Your task to perform on an android device: What's the weather going to be tomorrow? Image 0: 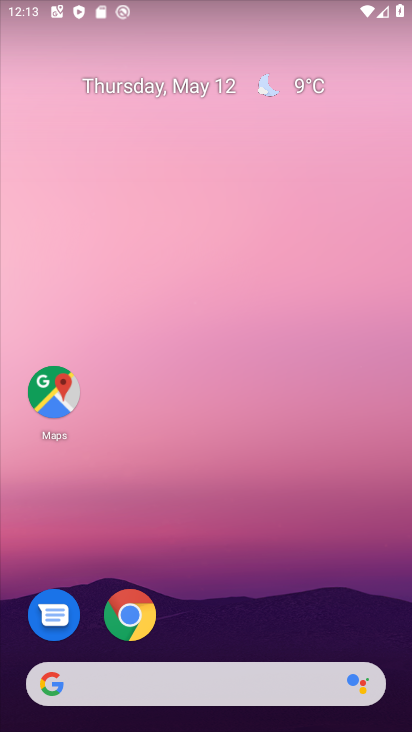
Step 0: click (296, 96)
Your task to perform on an android device: What's the weather going to be tomorrow? Image 1: 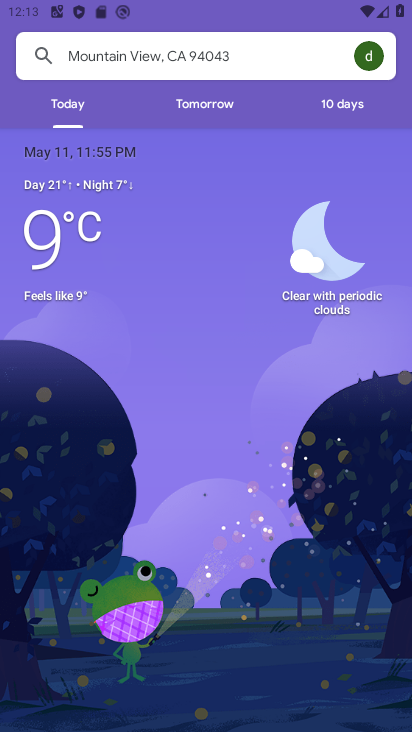
Step 1: click (190, 114)
Your task to perform on an android device: What's the weather going to be tomorrow? Image 2: 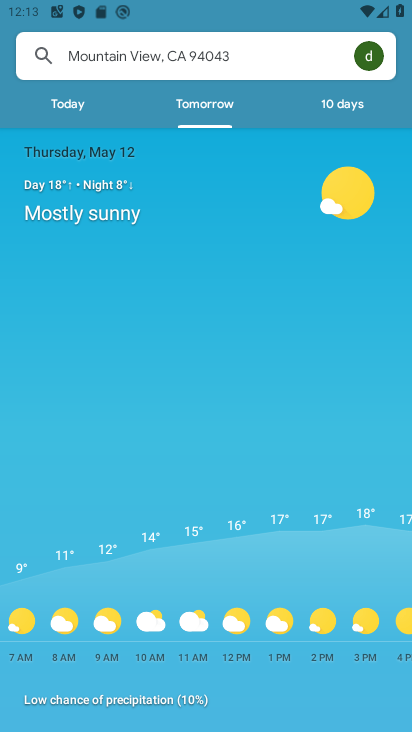
Step 2: task complete